Your task to perform on an android device: Go to Maps Image 0: 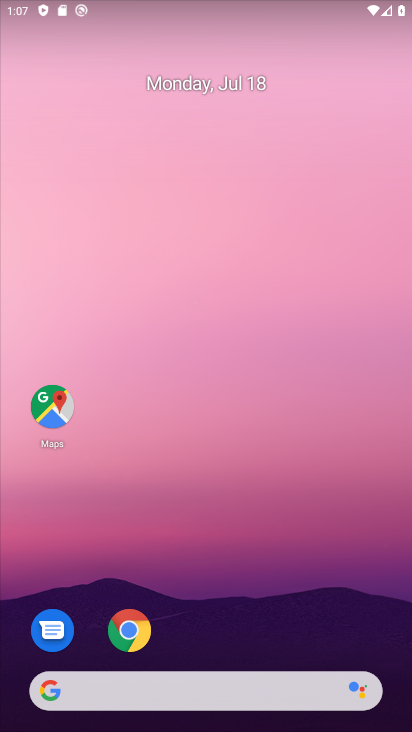
Step 0: click (62, 420)
Your task to perform on an android device: Go to Maps Image 1: 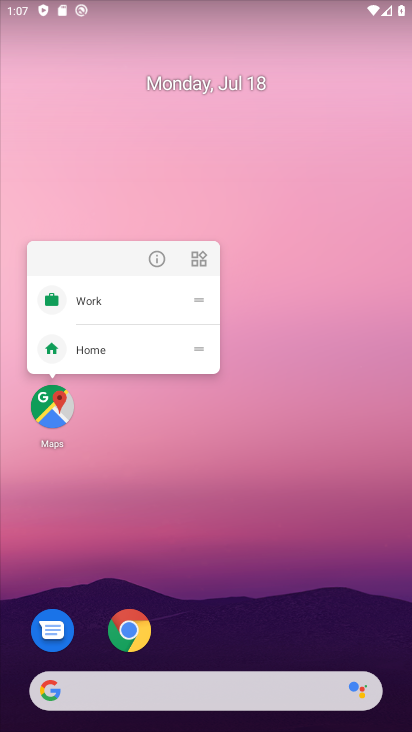
Step 1: click (64, 420)
Your task to perform on an android device: Go to Maps Image 2: 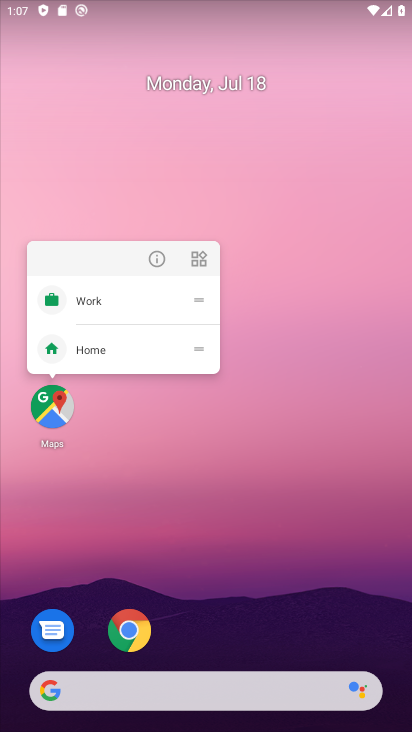
Step 2: click (45, 405)
Your task to perform on an android device: Go to Maps Image 3: 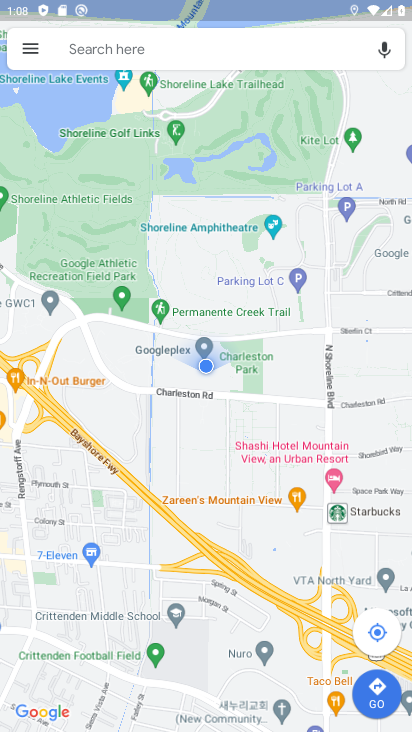
Step 3: task complete